Your task to perform on an android device: Open the web browser Image 0: 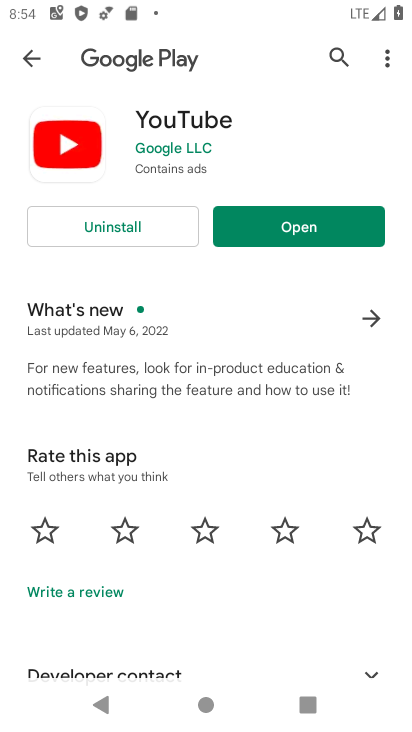
Step 0: press back button
Your task to perform on an android device: Open the web browser Image 1: 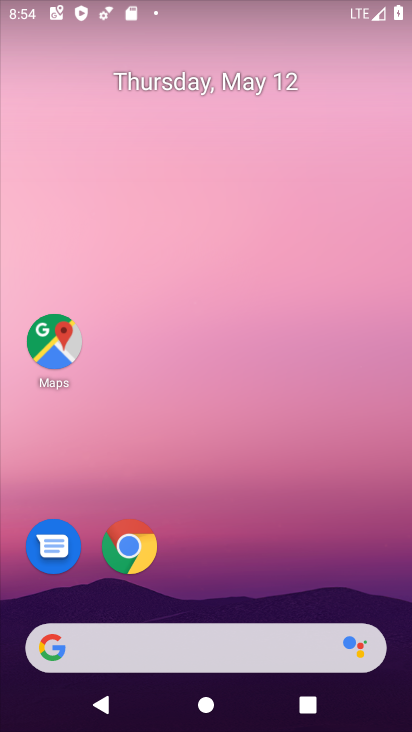
Step 1: click (117, 546)
Your task to perform on an android device: Open the web browser Image 2: 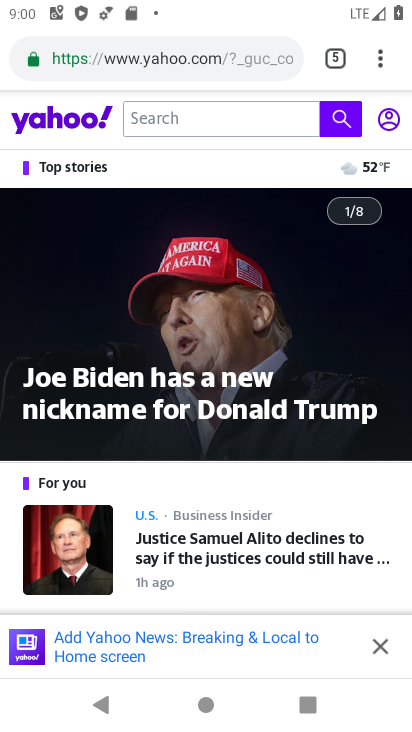
Step 2: task complete